Your task to perform on an android device: Add "usb-a" to the cart on ebay Image 0: 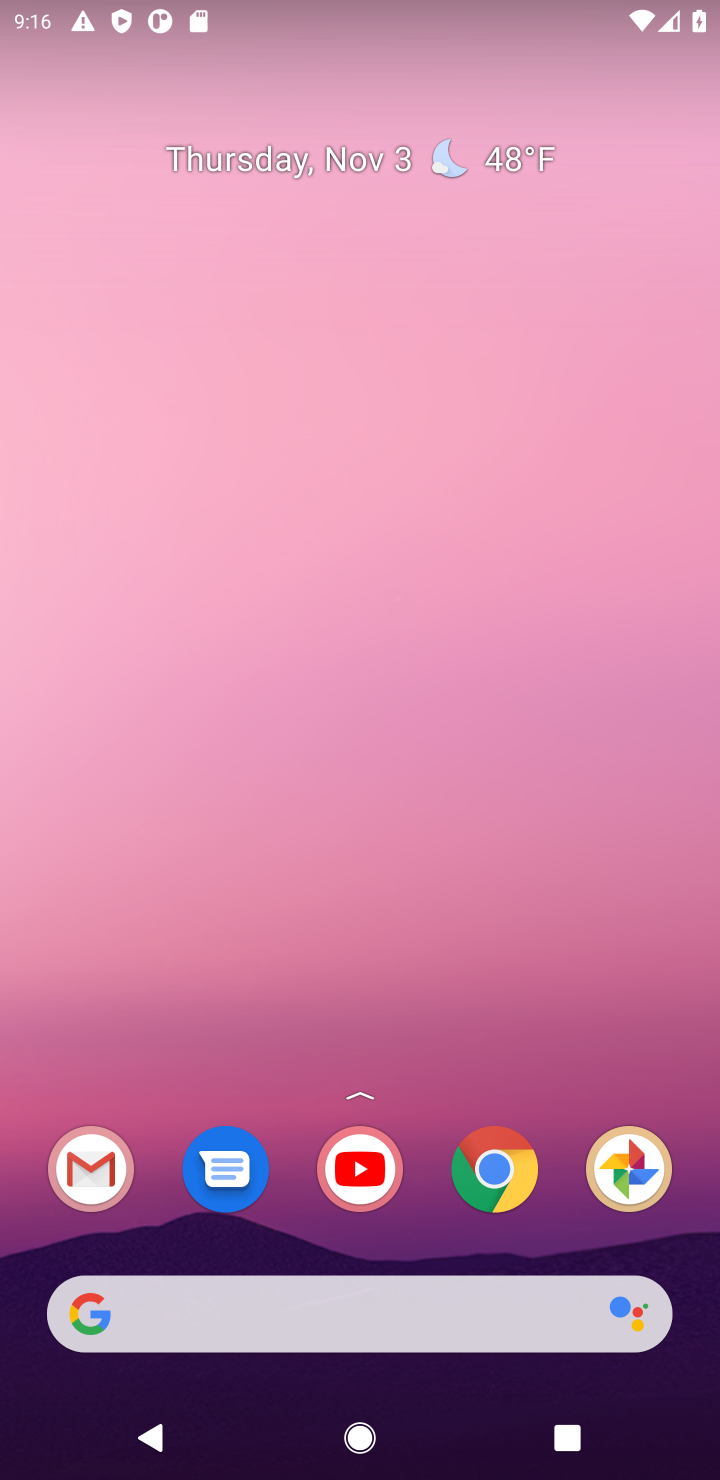
Step 0: drag from (384, 1082) to (396, 134)
Your task to perform on an android device: Add "usb-a" to the cart on ebay Image 1: 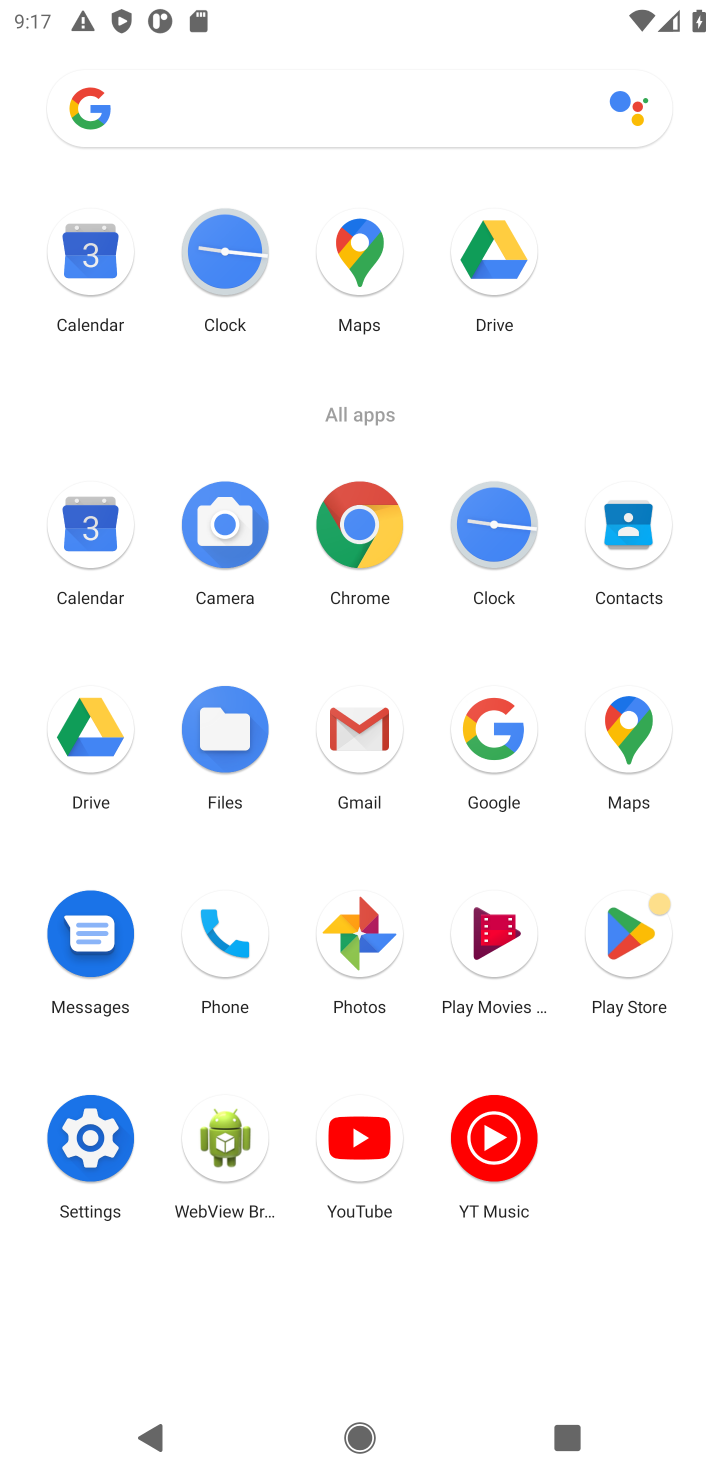
Step 1: click (356, 529)
Your task to perform on an android device: Add "usb-a" to the cart on ebay Image 2: 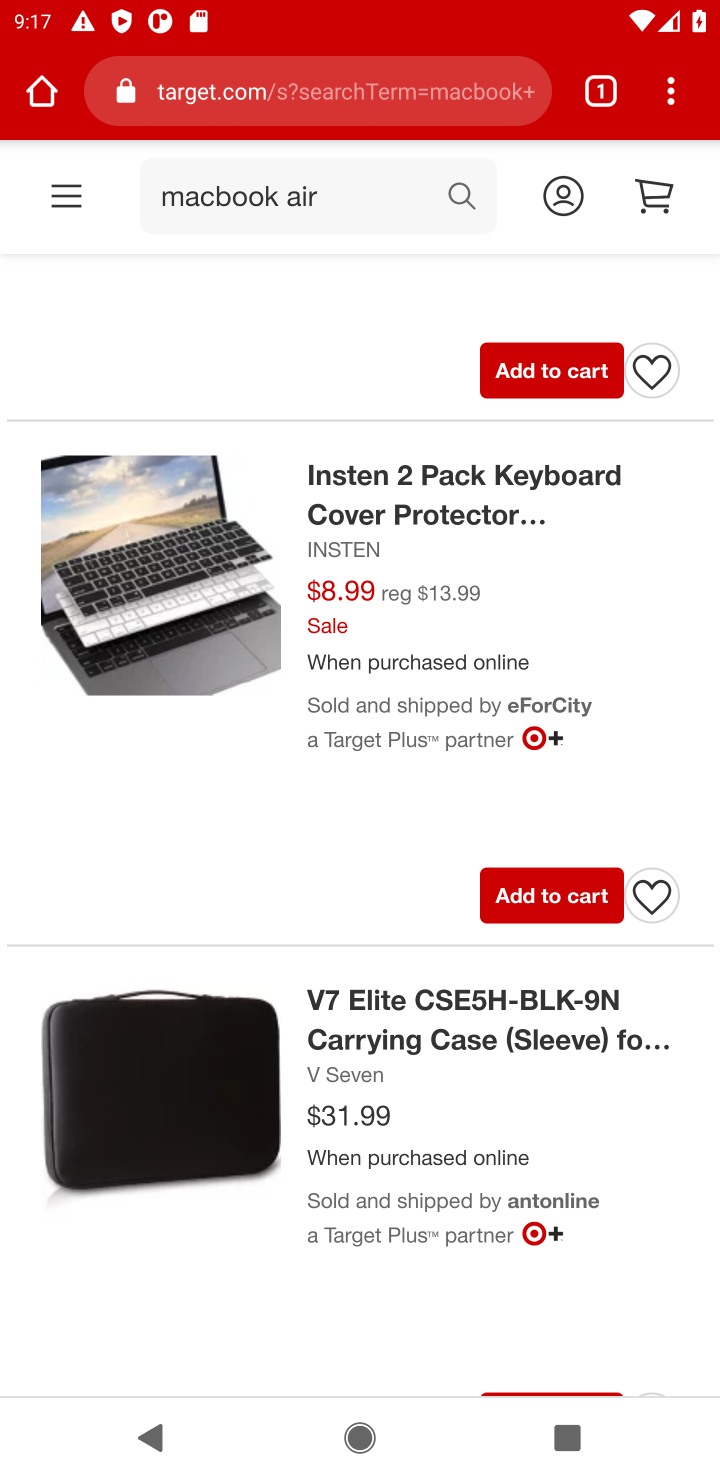
Step 2: click (323, 207)
Your task to perform on an android device: Add "usb-a" to the cart on ebay Image 3: 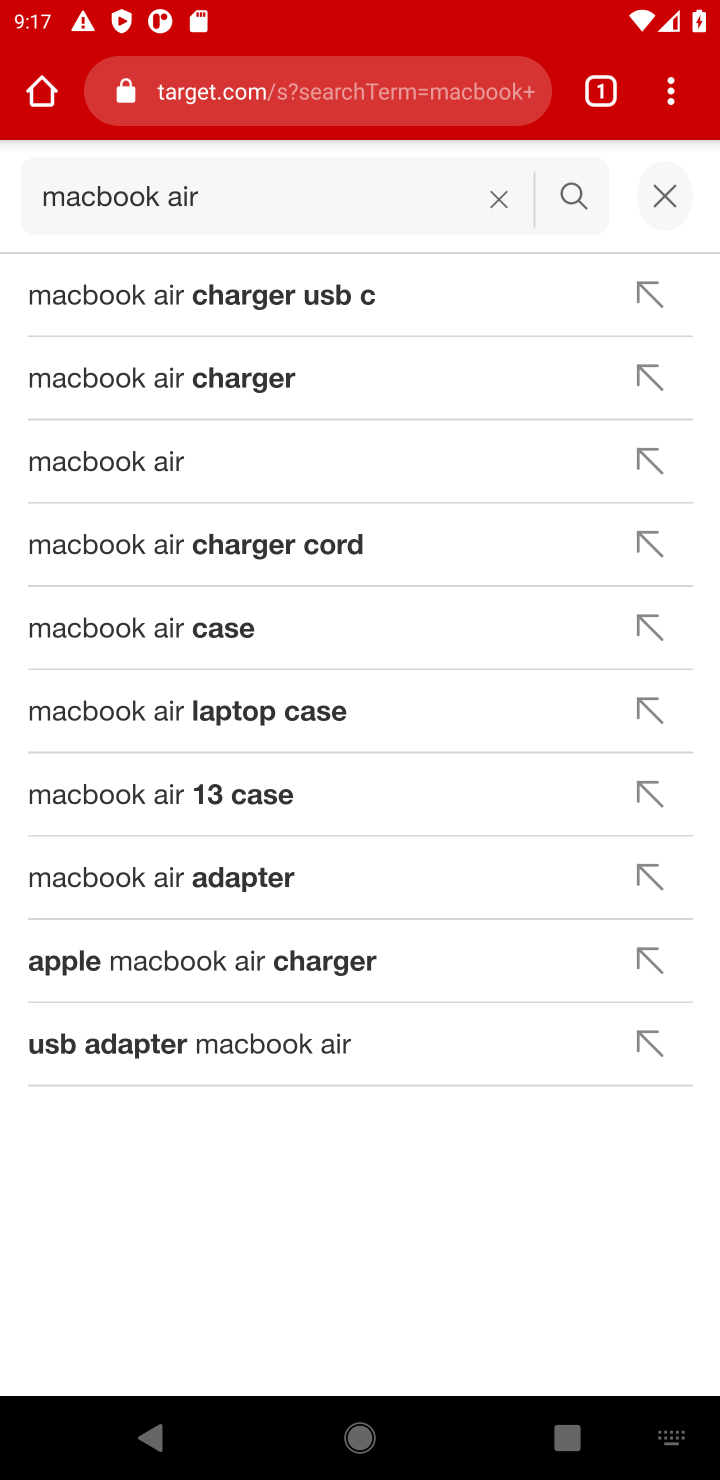
Step 3: click (502, 205)
Your task to perform on an android device: Add "usb-a" to the cart on ebay Image 4: 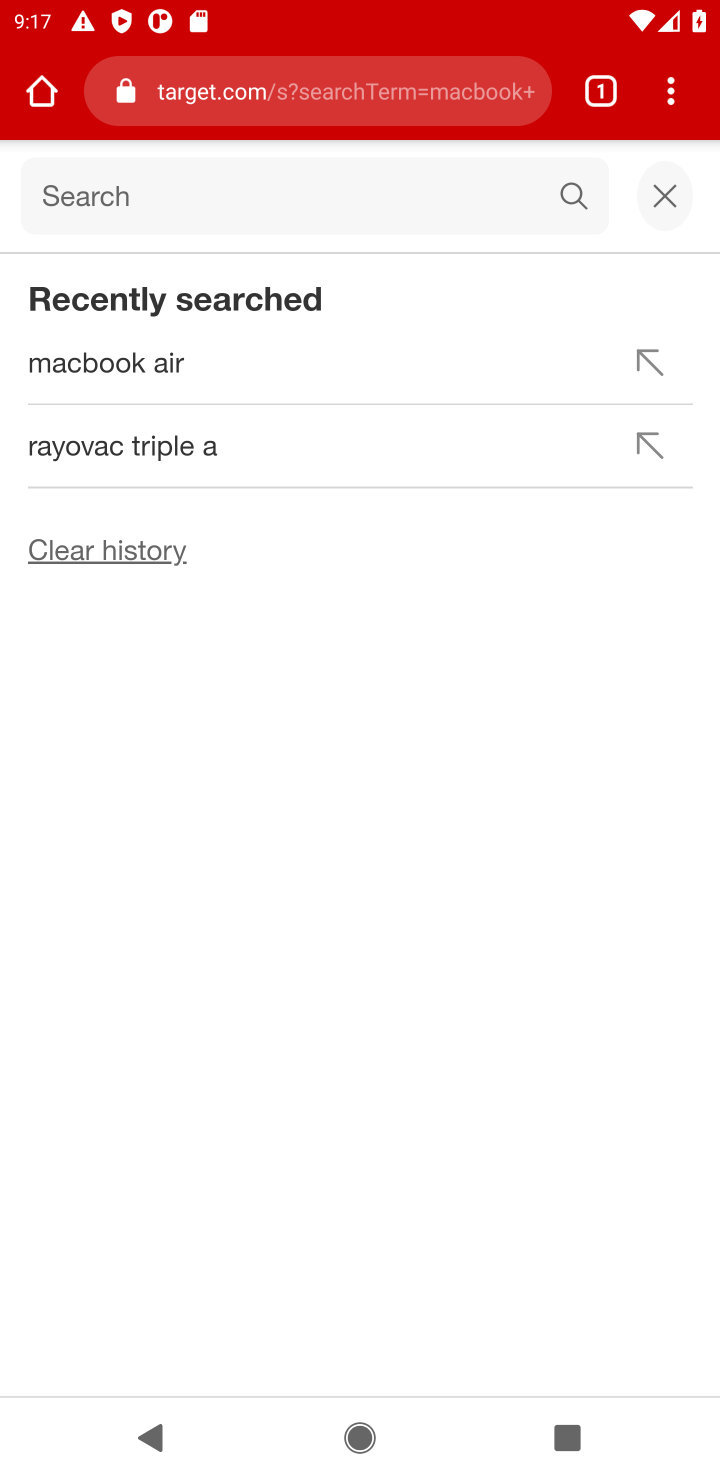
Step 4: type "usb-a"
Your task to perform on an android device: Add "usb-a" to the cart on ebay Image 5: 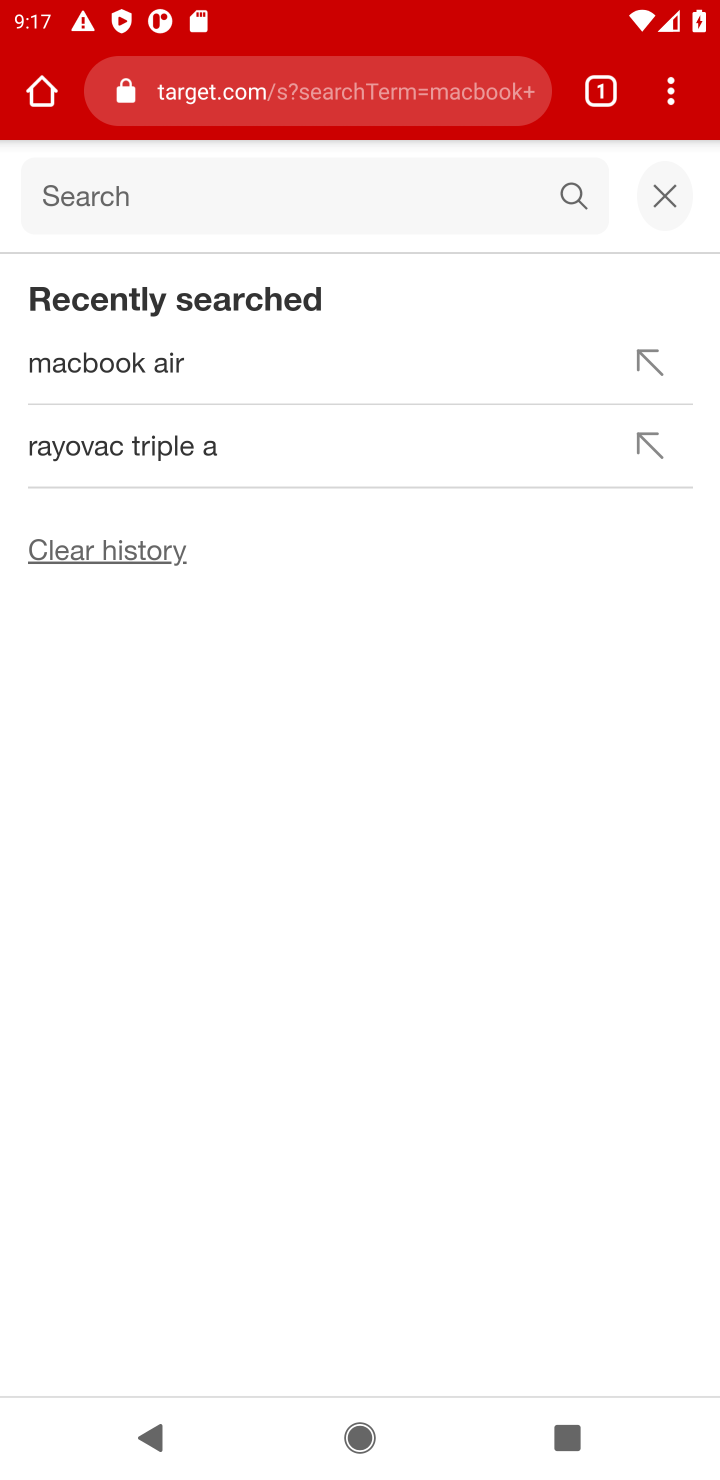
Step 5: click (269, 205)
Your task to perform on an android device: Add "usb-a" to the cart on ebay Image 6: 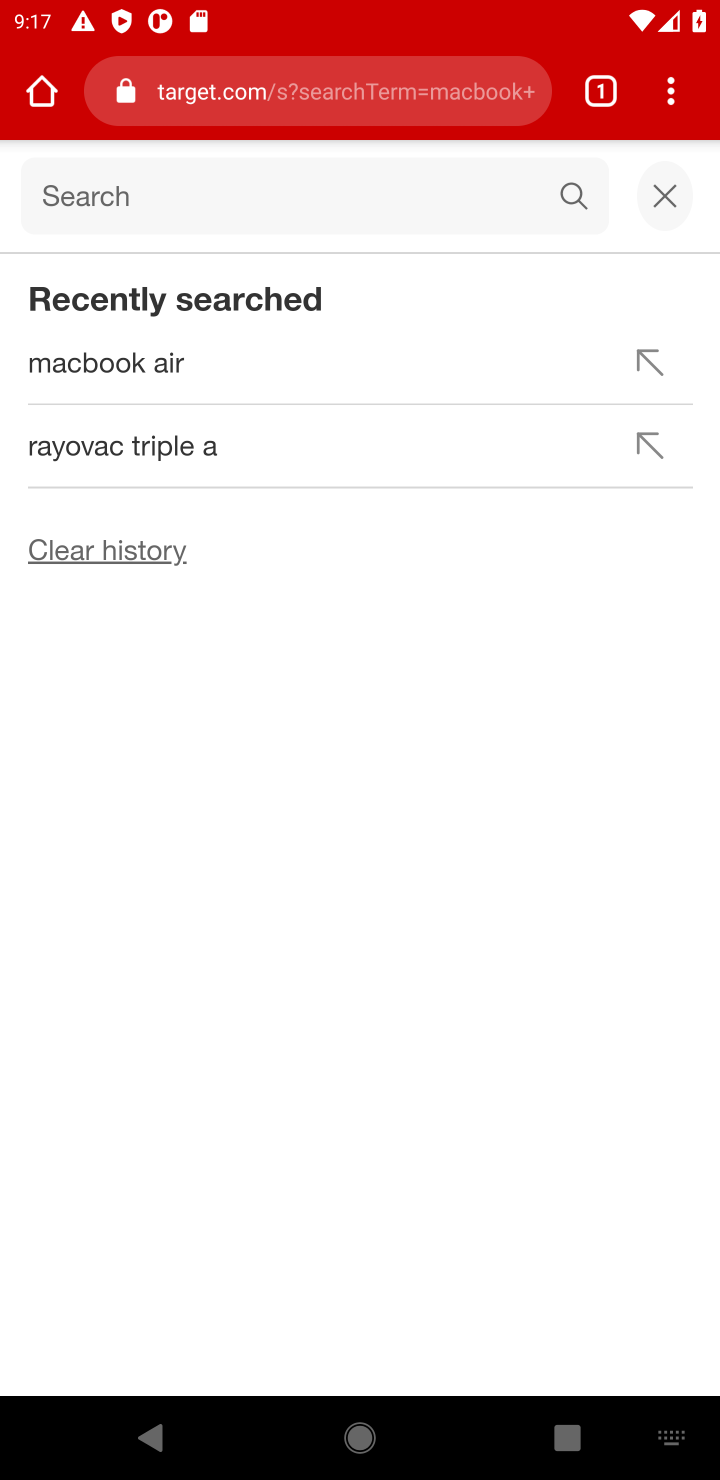
Step 6: type "usb-a "
Your task to perform on an android device: Add "usb-a" to the cart on ebay Image 7: 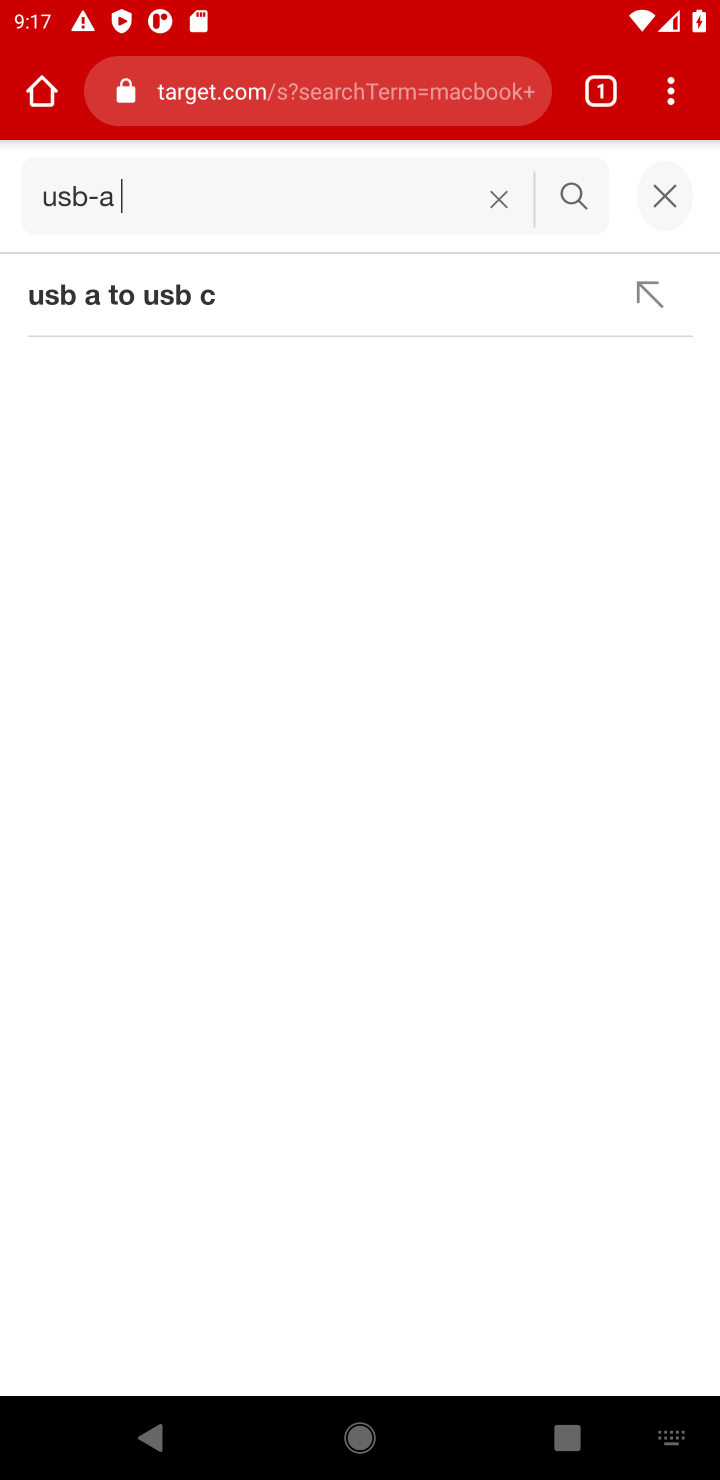
Step 7: press enter
Your task to perform on an android device: Add "usb-a" to the cart on ebay Image 8: 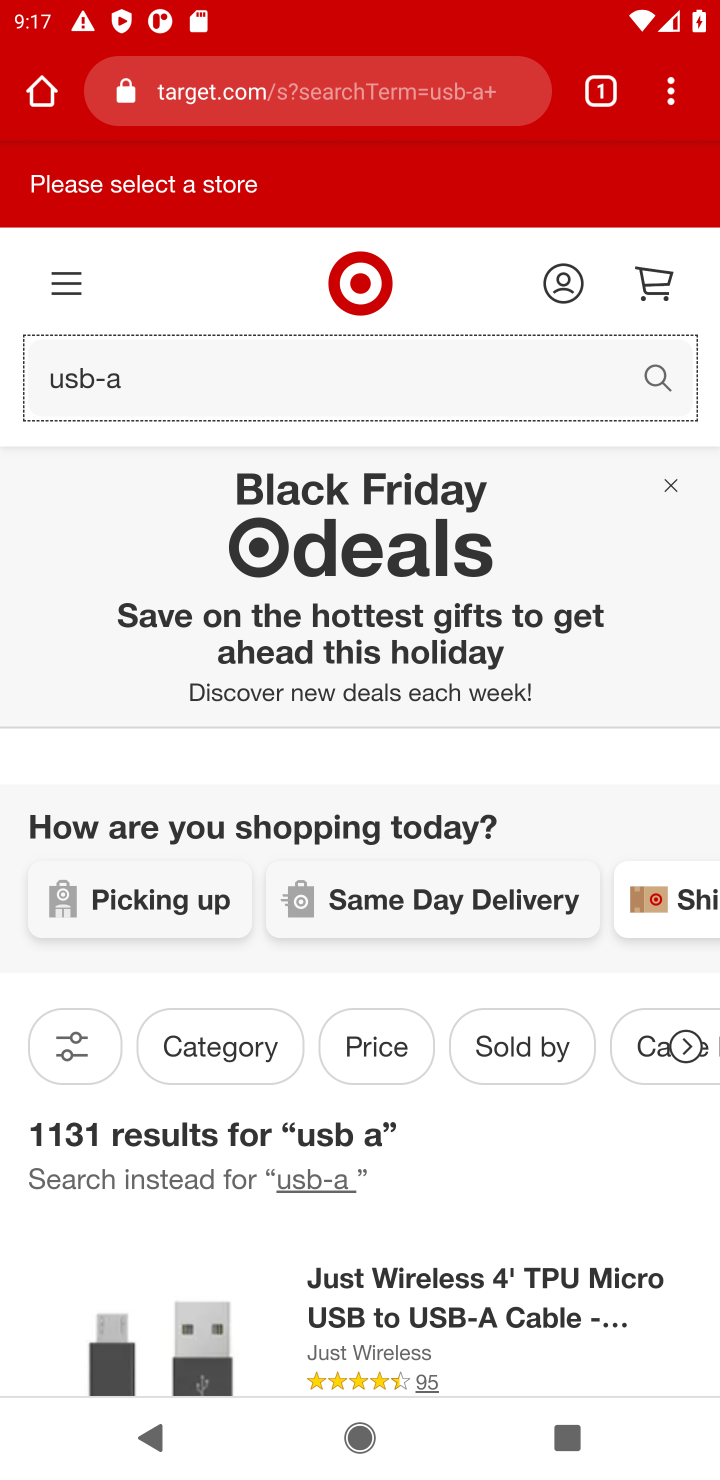
Step 8: drag from (484, 1072) to (504, 501)
Your task to perform on an android device: Add "usb-a" to the cart on ebay Image 9: 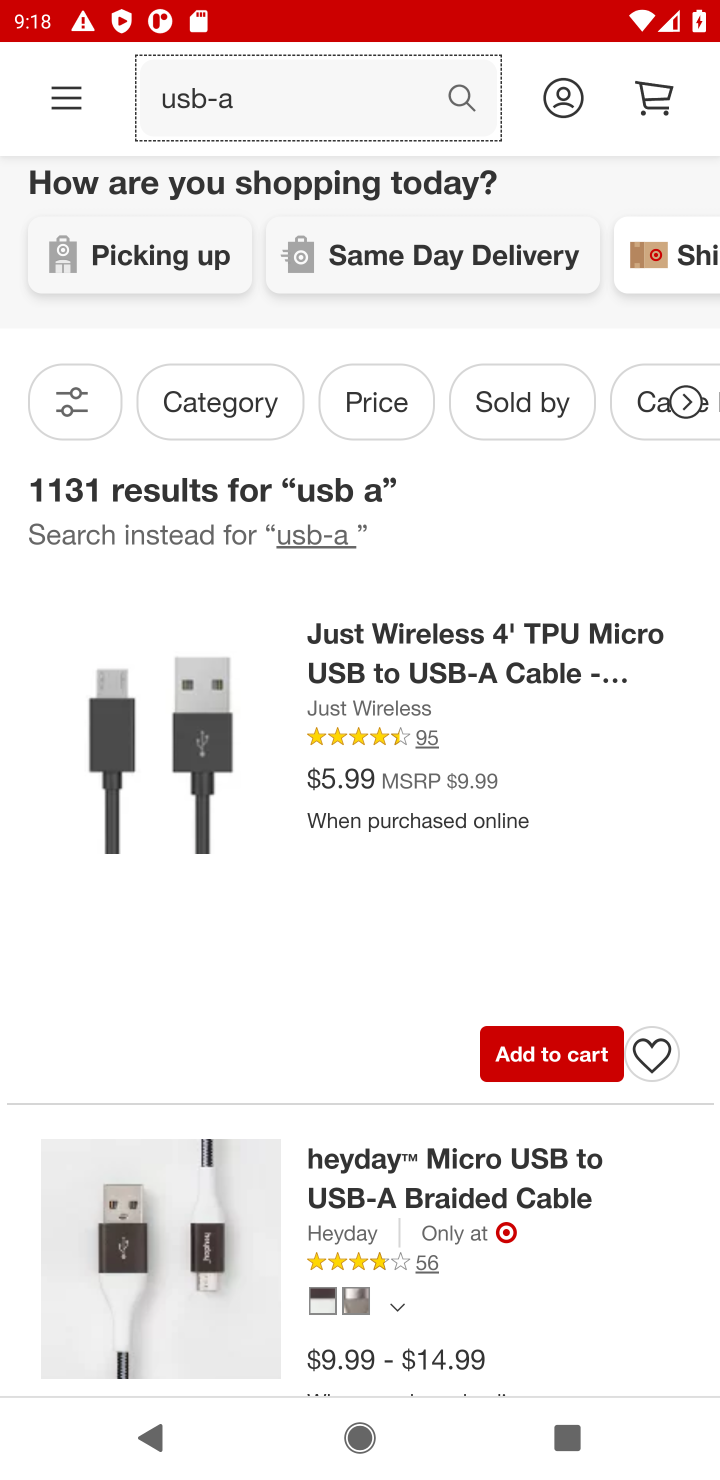
Step 9: click (541, 1059)
Your task to perform on an android device: Add "usb-a" to the cart on ebay Image 10: 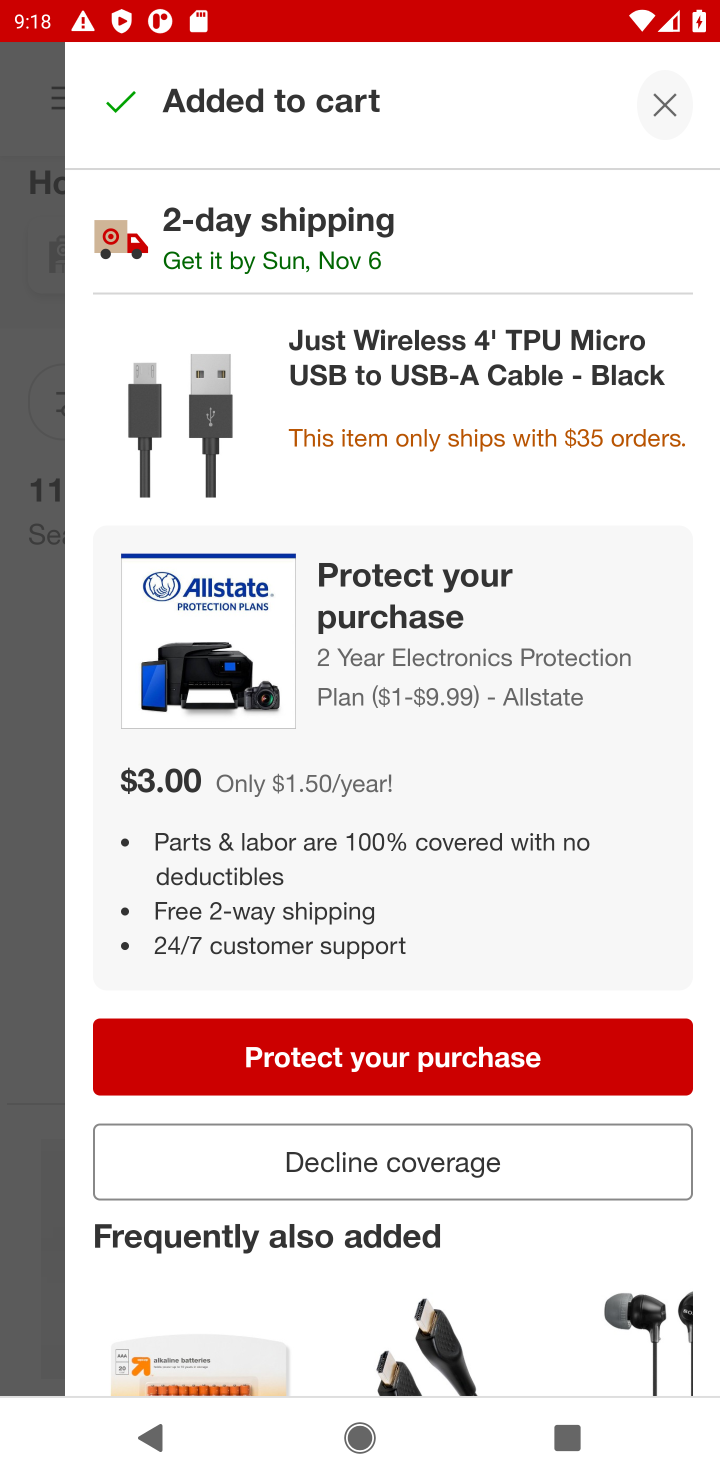
Step 10: click (671, 115)
Your task to perform on an android device: Add "usb-a" to the cart on ebay Image 11: 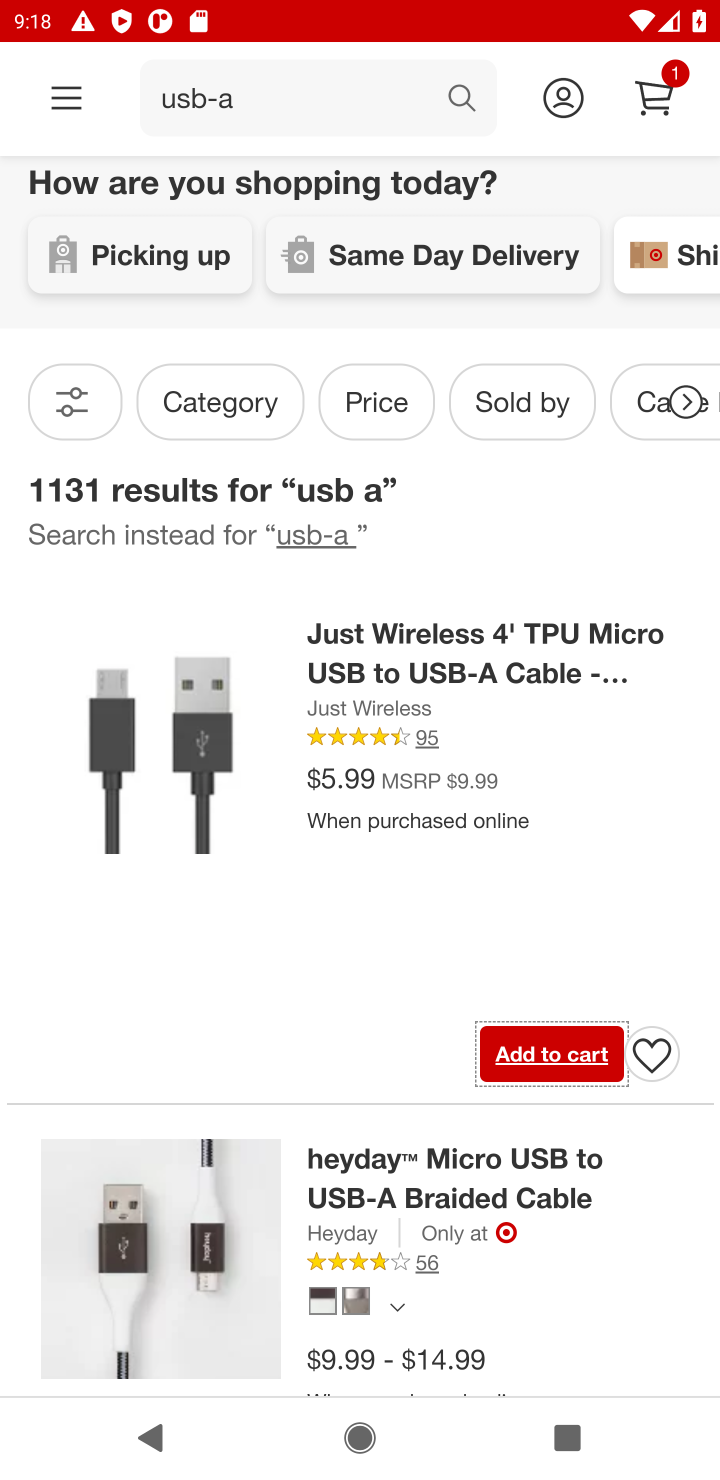
Step 11: click (652, 100)
Your task to perform on an android device: Add "usb-a" to the cart on ebay Image 12: 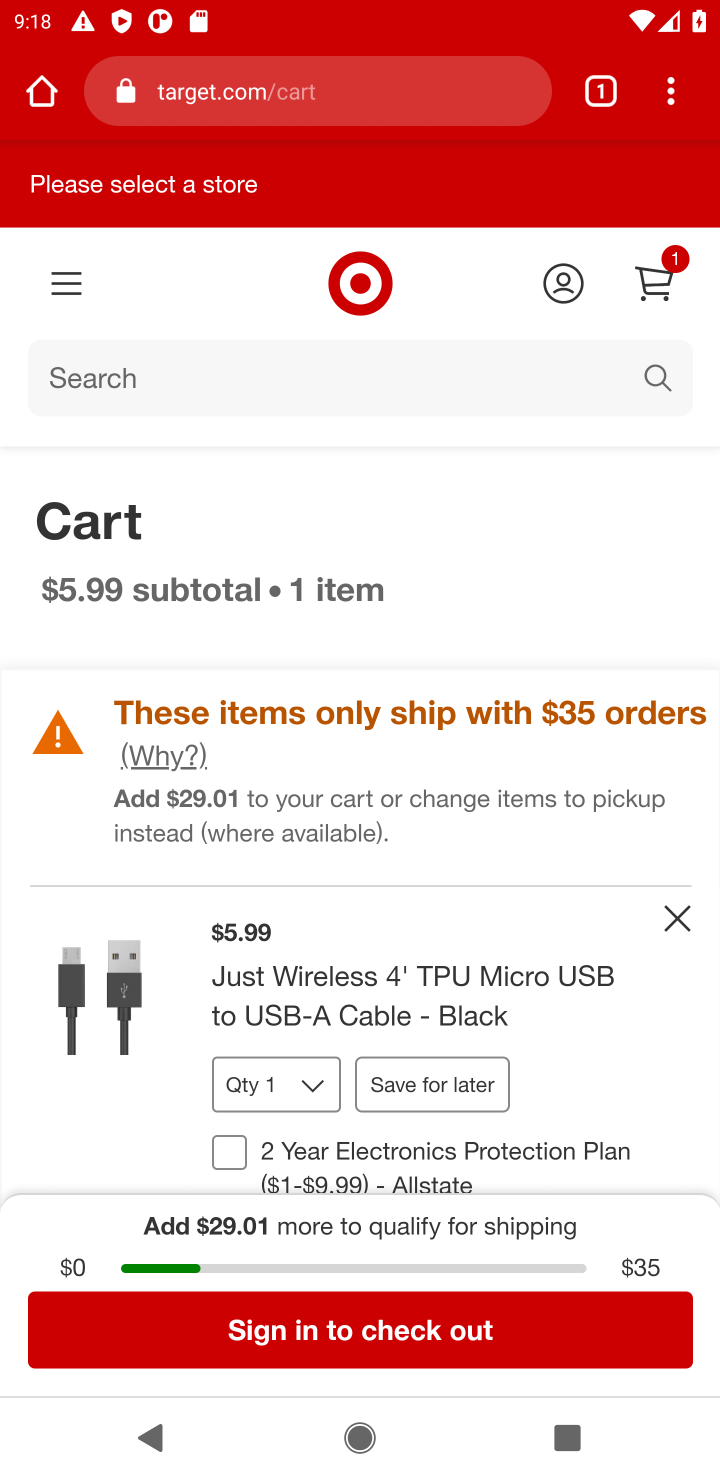
Step 12: task complete